Your task to perform on an android device: Add energizer triple a to the cart on amazon.com Image 0: 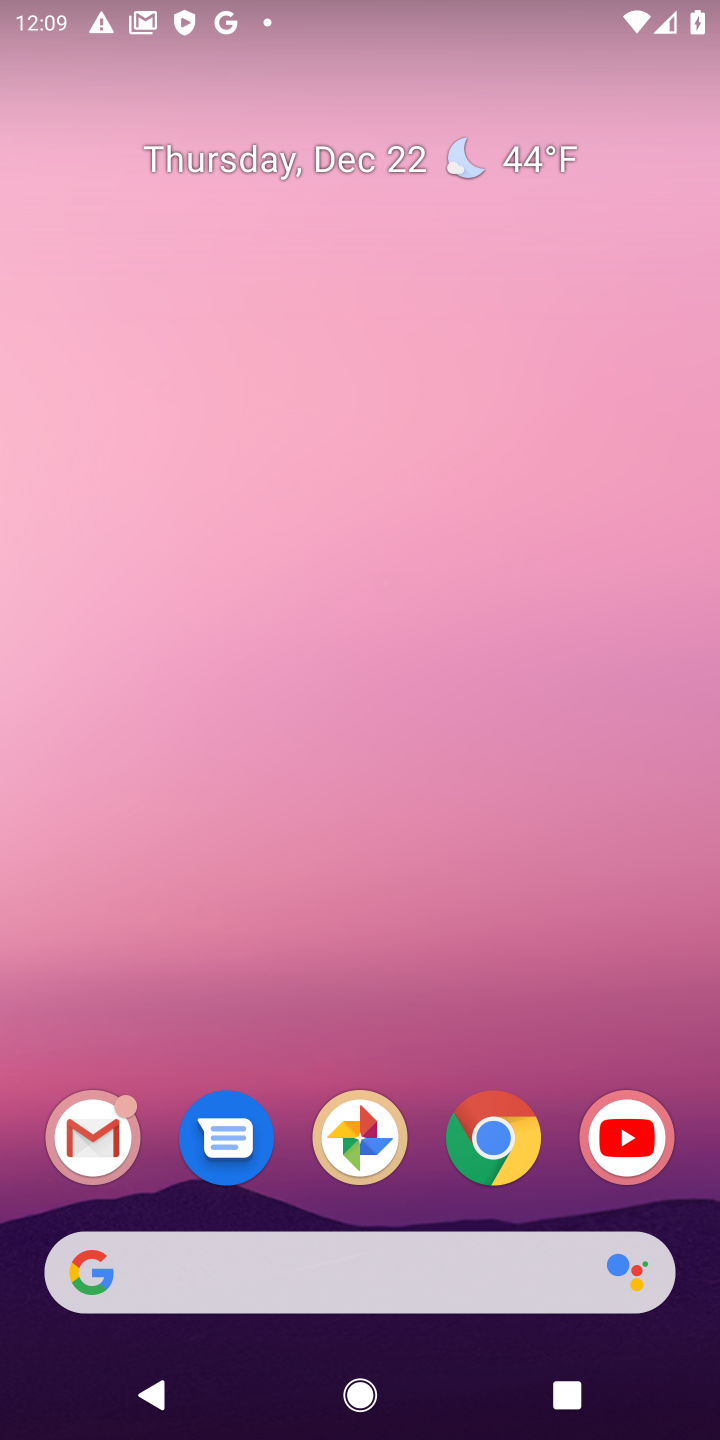
Step 0: click (492, 1143)
Your task to perform on an android device: Add energizer triple a to the cart on amazon.com Image 1: 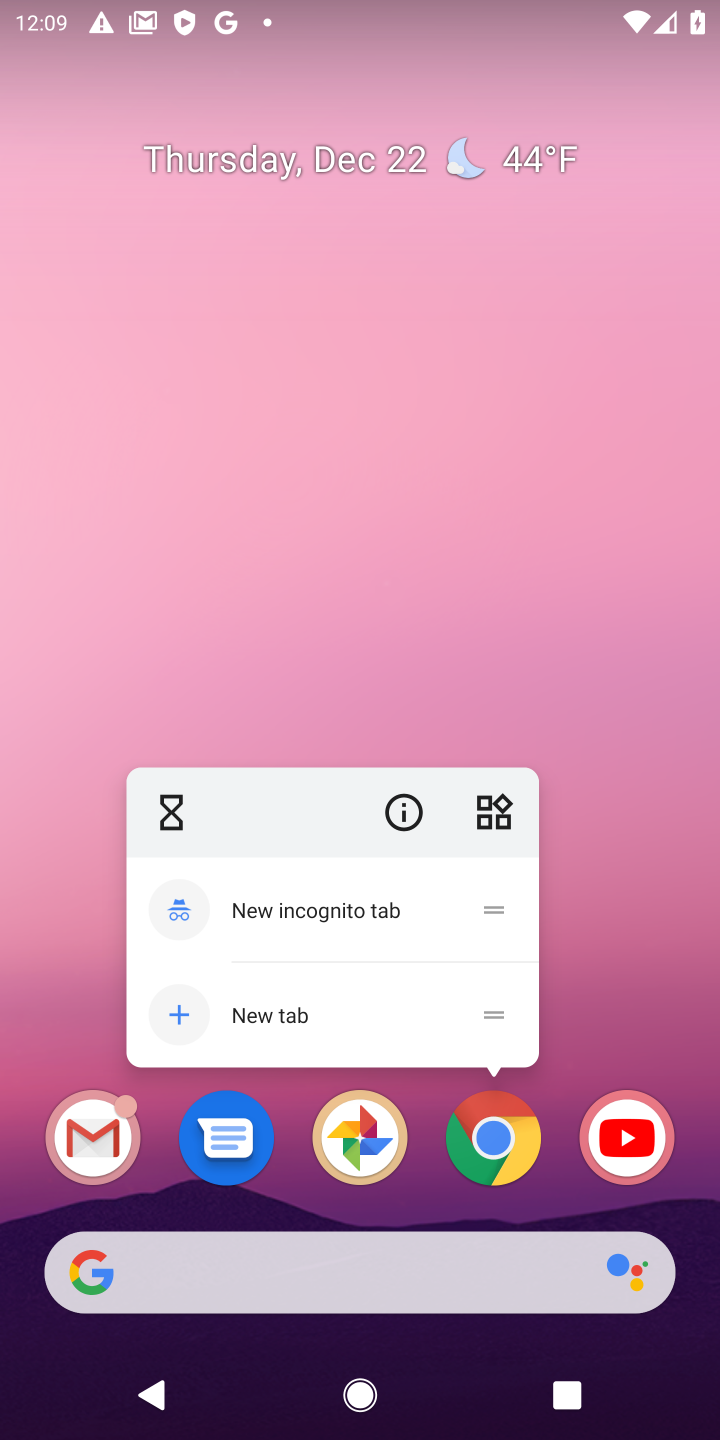
Step 1: click (492, 1143)
Your task to perform on an android device: Add energizer triple a to the cart on amazon.com Image 2: 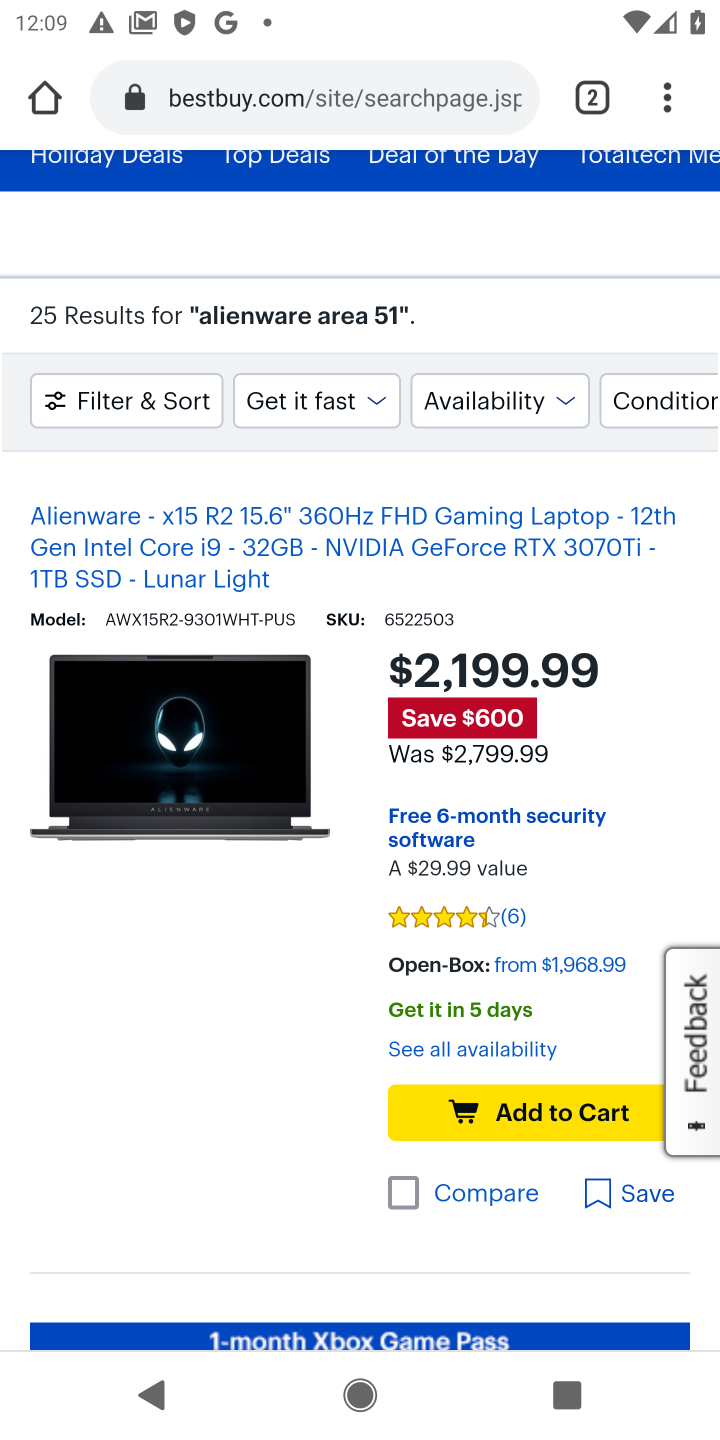
Step 2: click (266, 106)
Your task to perform on an android device: Add energizer triple a to the cart on amazon.com Image 3: 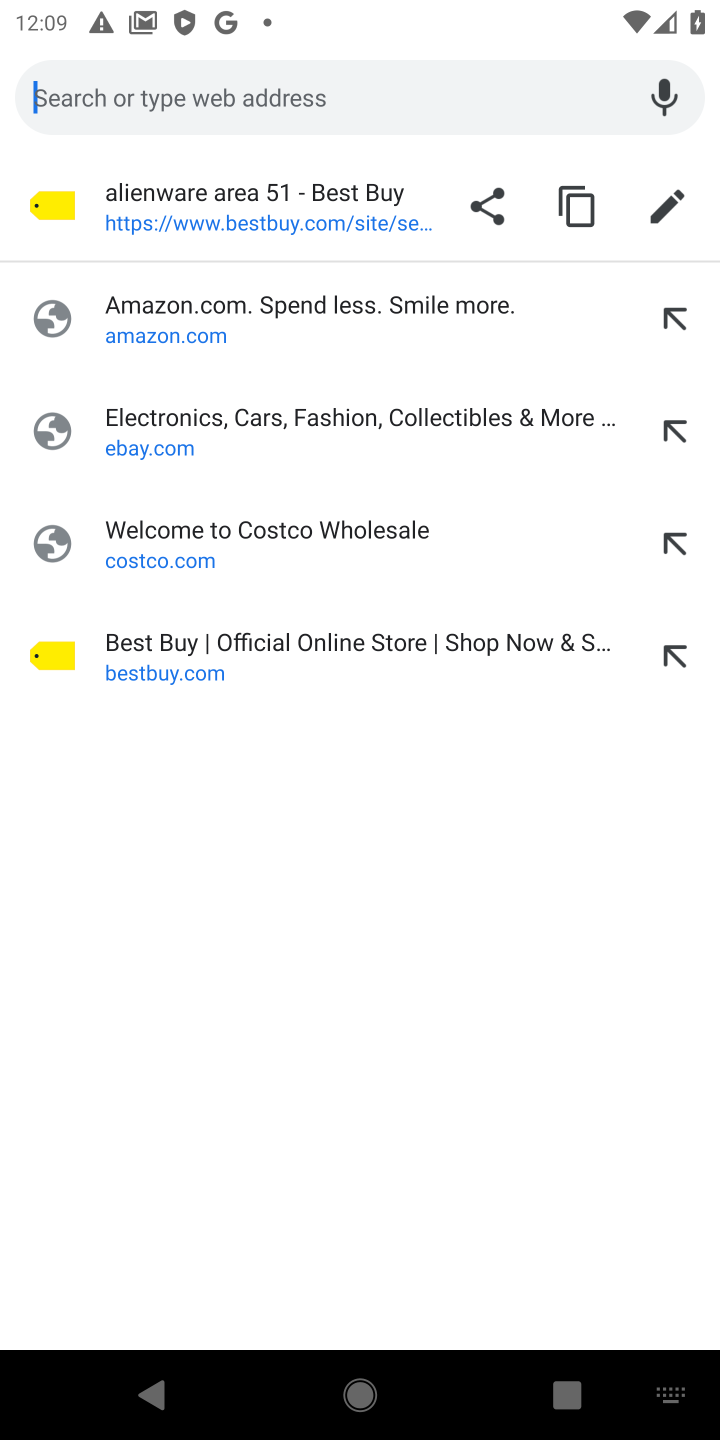
Step 3: click (181, 324)
Your task to perform on an android device: Add energizer triple a to the cart on amazon.com Image 4: 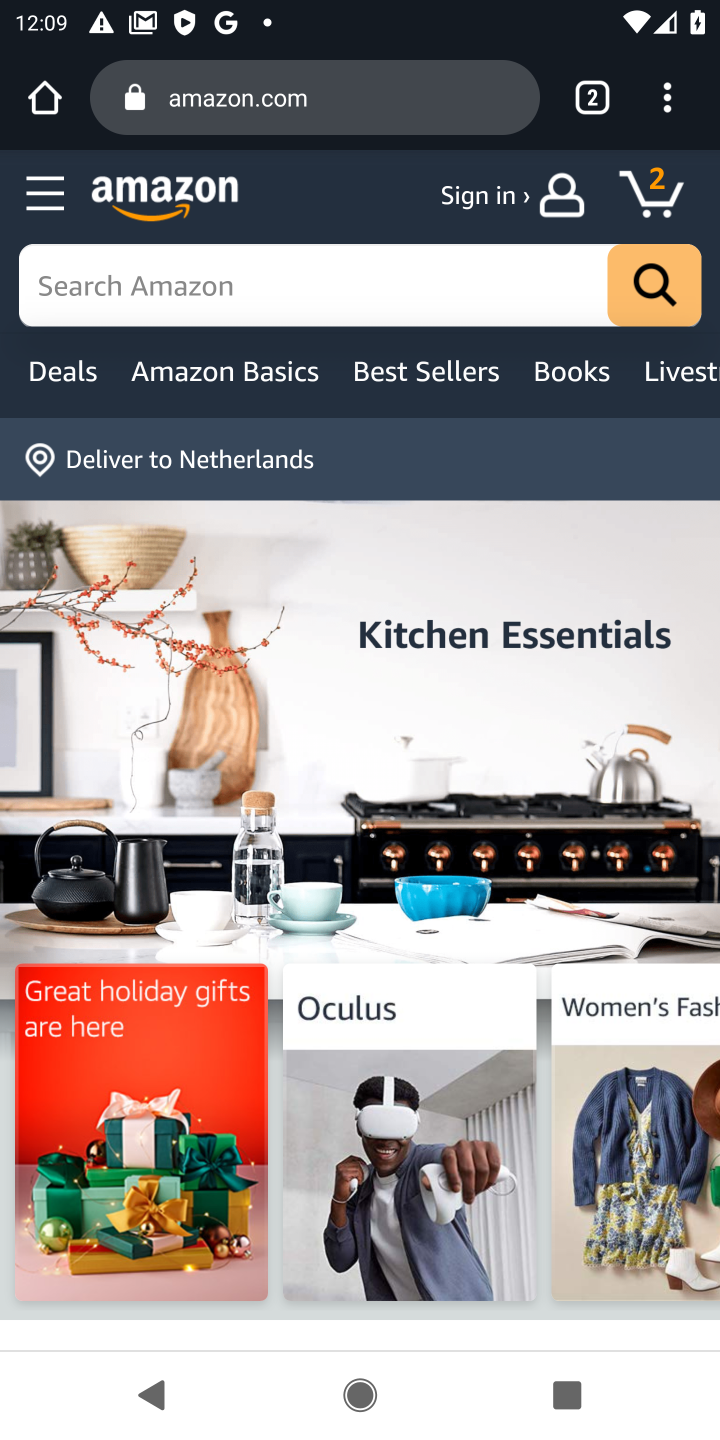
Step 4: click (120, 301)
Your task to perform on an android device: Add energizer triple a to the cart on amazon.com Image 5: 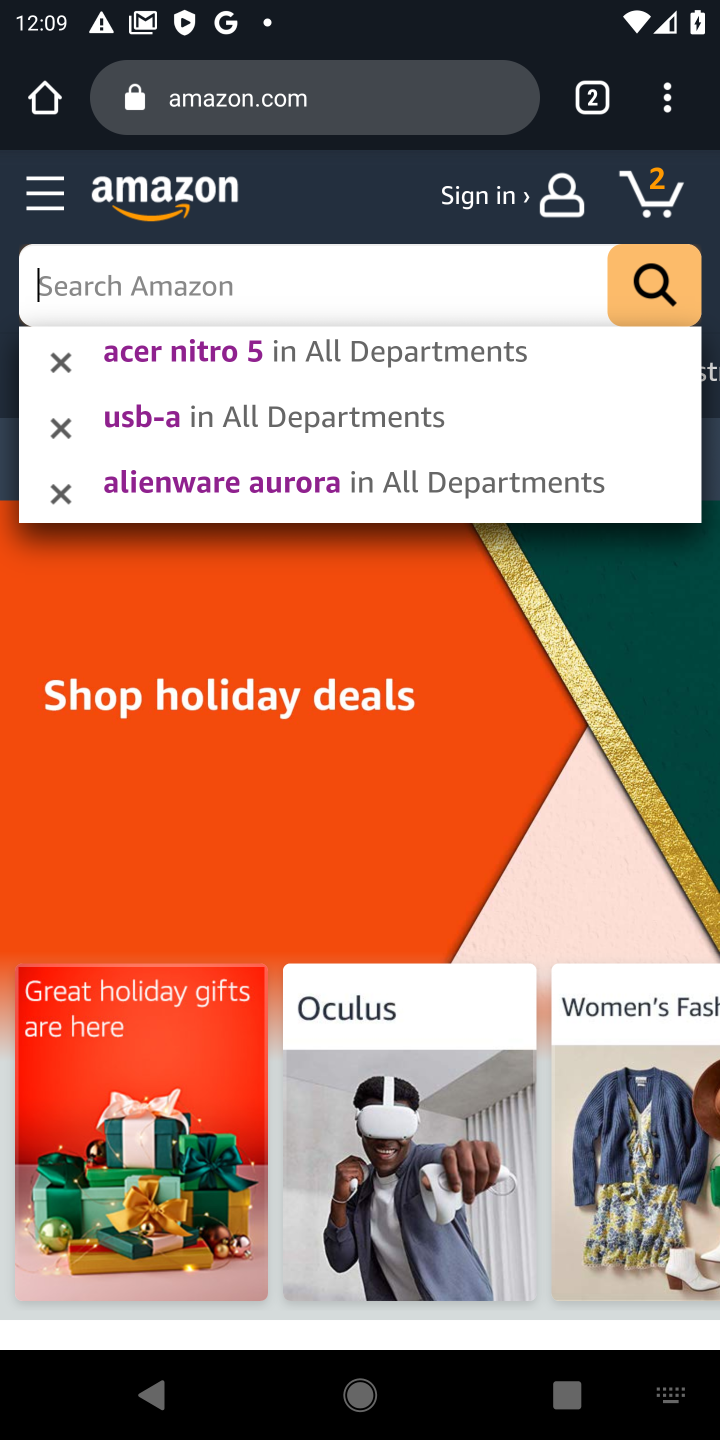
Step 5: type "energizer triple a"
Your task to perform on an android device: Add energizer triple a to the cart on amazon.com Image 6: 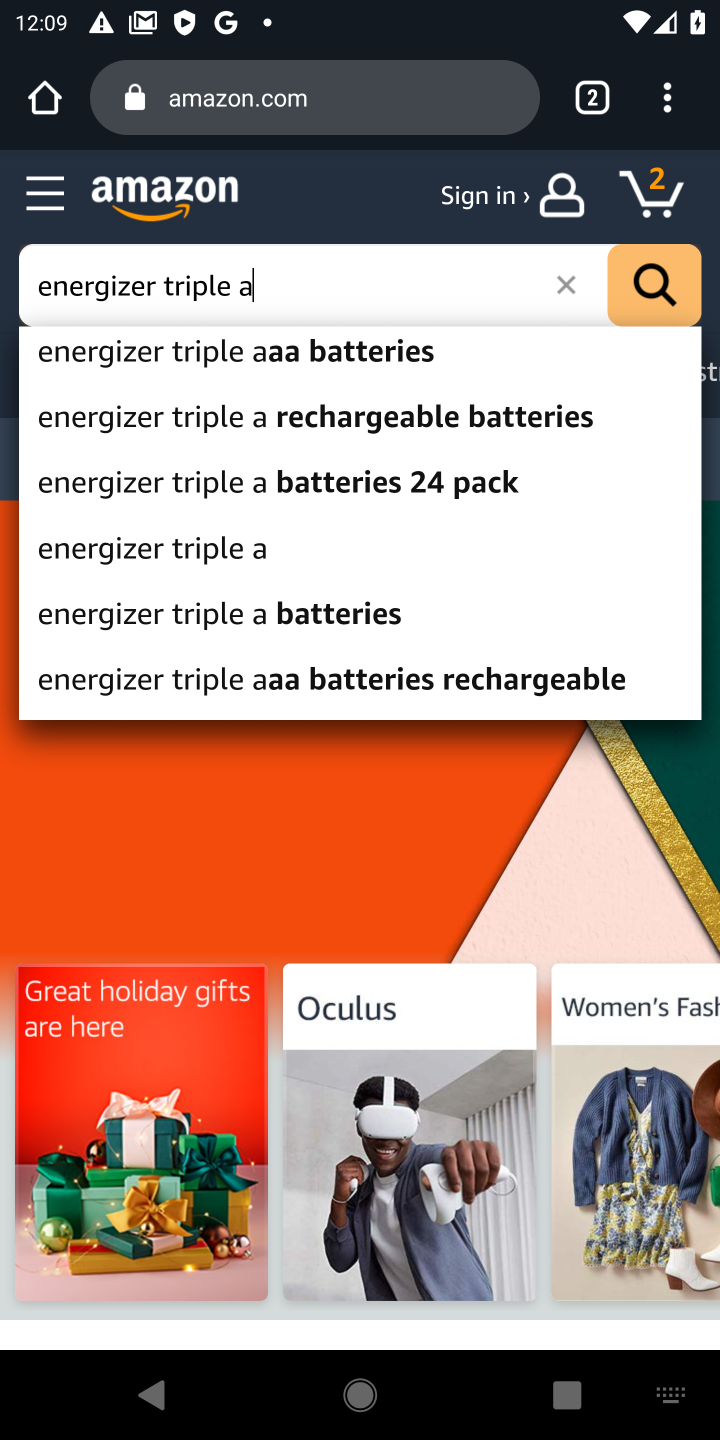
Step 6: click (224, 364)
Your task to perform on an android device: Add energizer triple a to the cart on amazon.com Image 7: 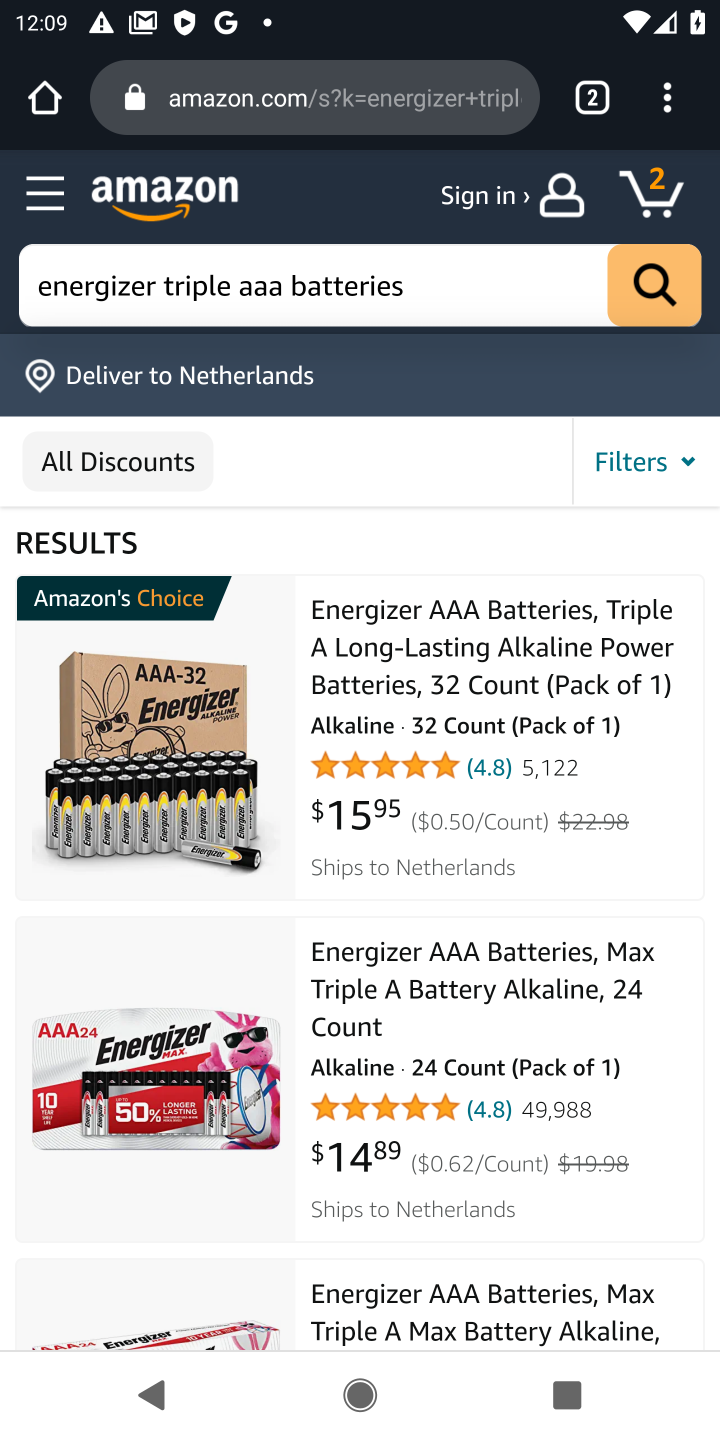
Step 7: click (401, 678)
Your task to perform on an android device: Add energizer triple a to the cart on amazon.com Image 8: 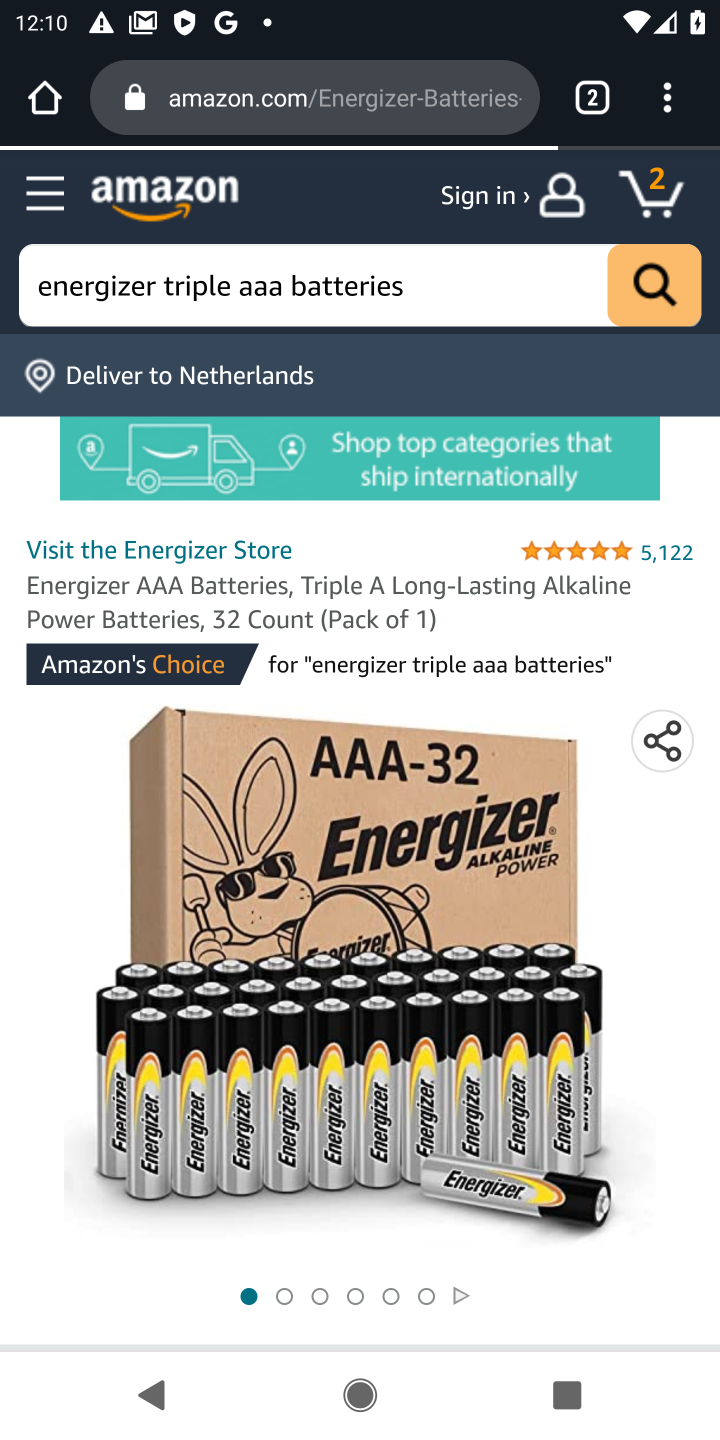
Step 8: drag from (315, 923) to (298, 573)
Your task to perform on an android device: Add energizer triple a to the cart on amazon.com Image 9: 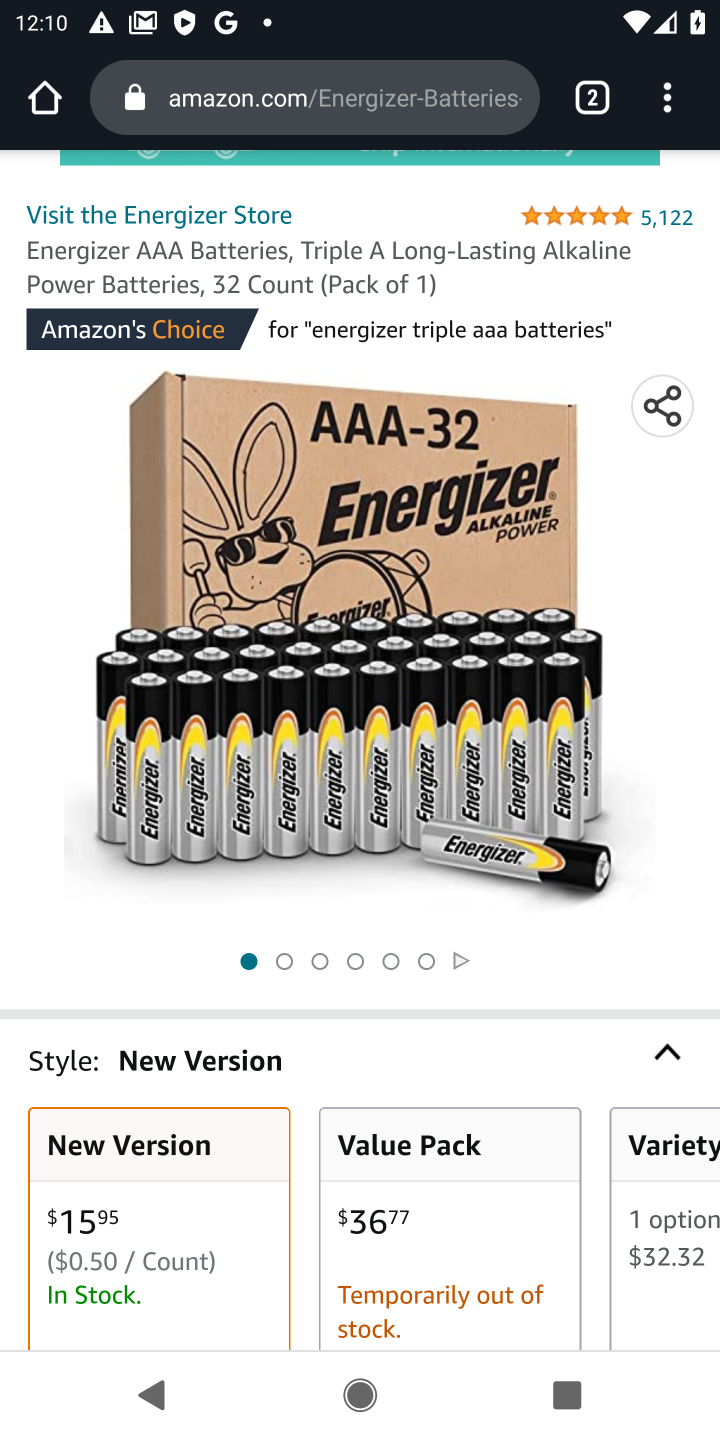
Step 9: drag from (346, 853) to (286, 389)
Your task to perform on an android device: Add energizer triple a to the cart on amazon.com Image 10: 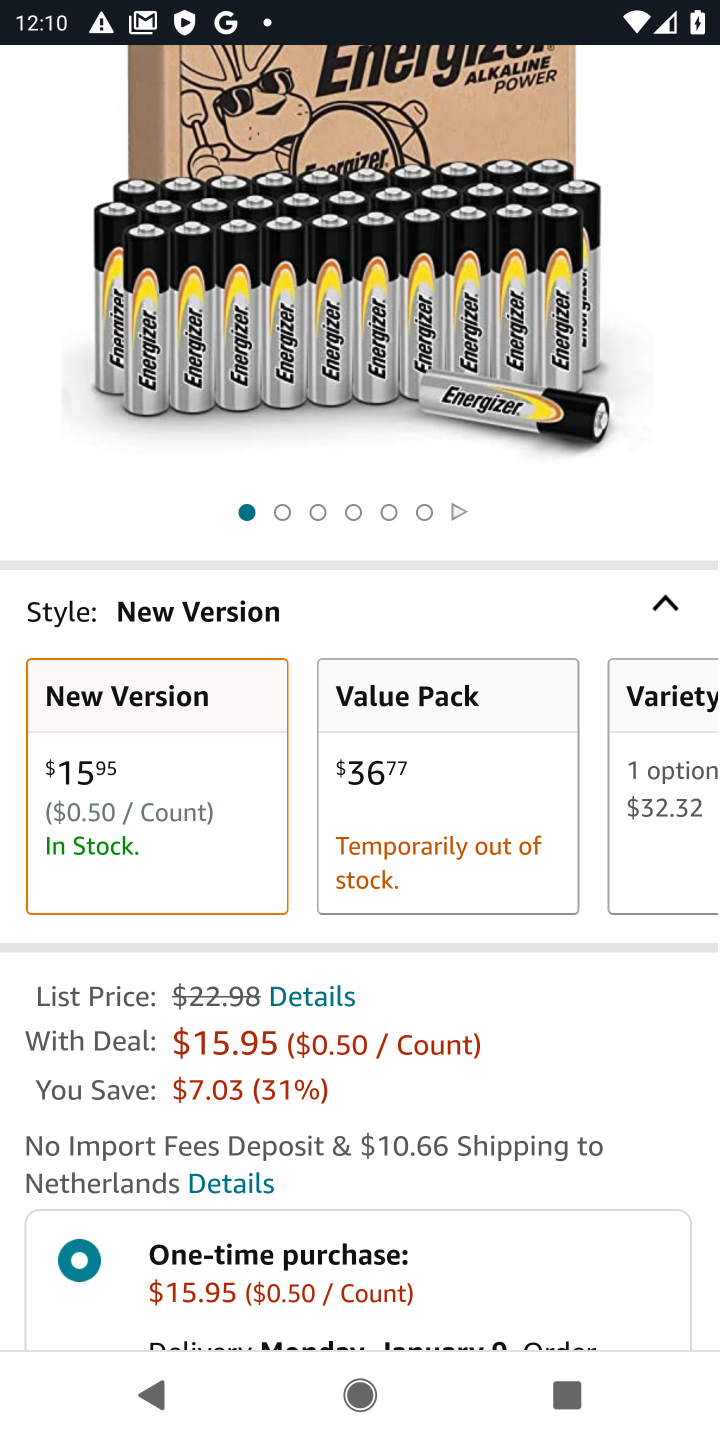
Step 10: drag from (347, 1064) to (334, 451)
Your task to perform on an android device: Add energizer triple a to the cart on amazon.com Image 11: 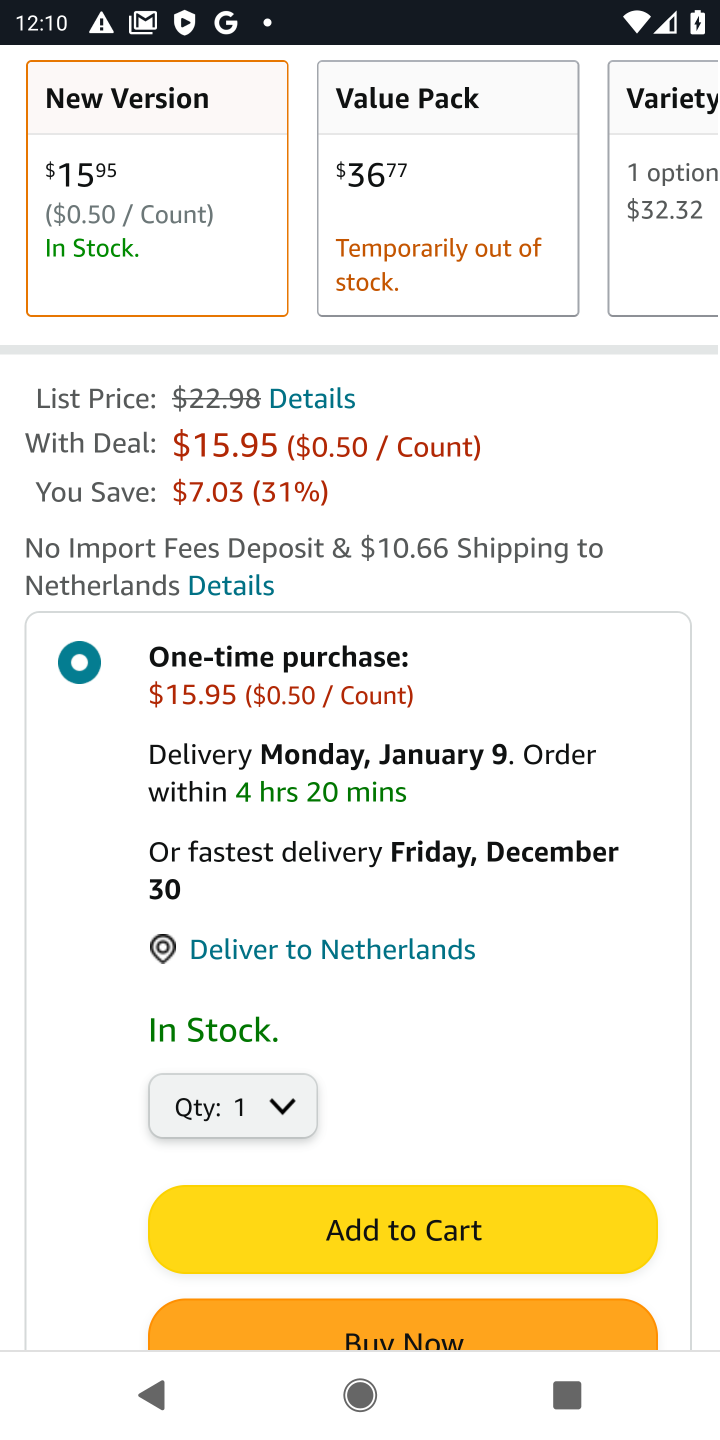
Step 11: drag from (361, 1002) to (344, 654)
Your task to perform on an android device: Add energizer triple a to the cart on amazon.com Image 12: 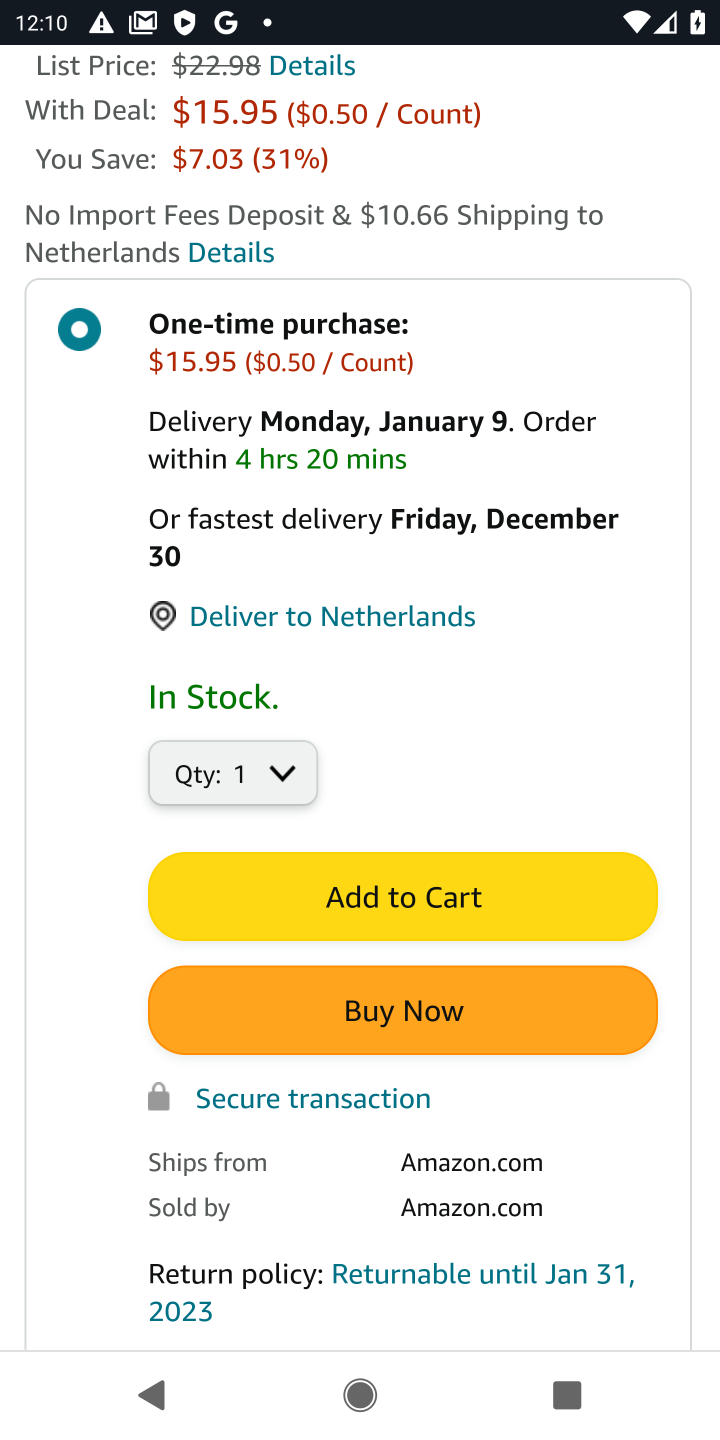
Step 12: click (366, 884)
Your task to perform on an android device: Add energizer triple a to the cart on amazon.com Image 13: 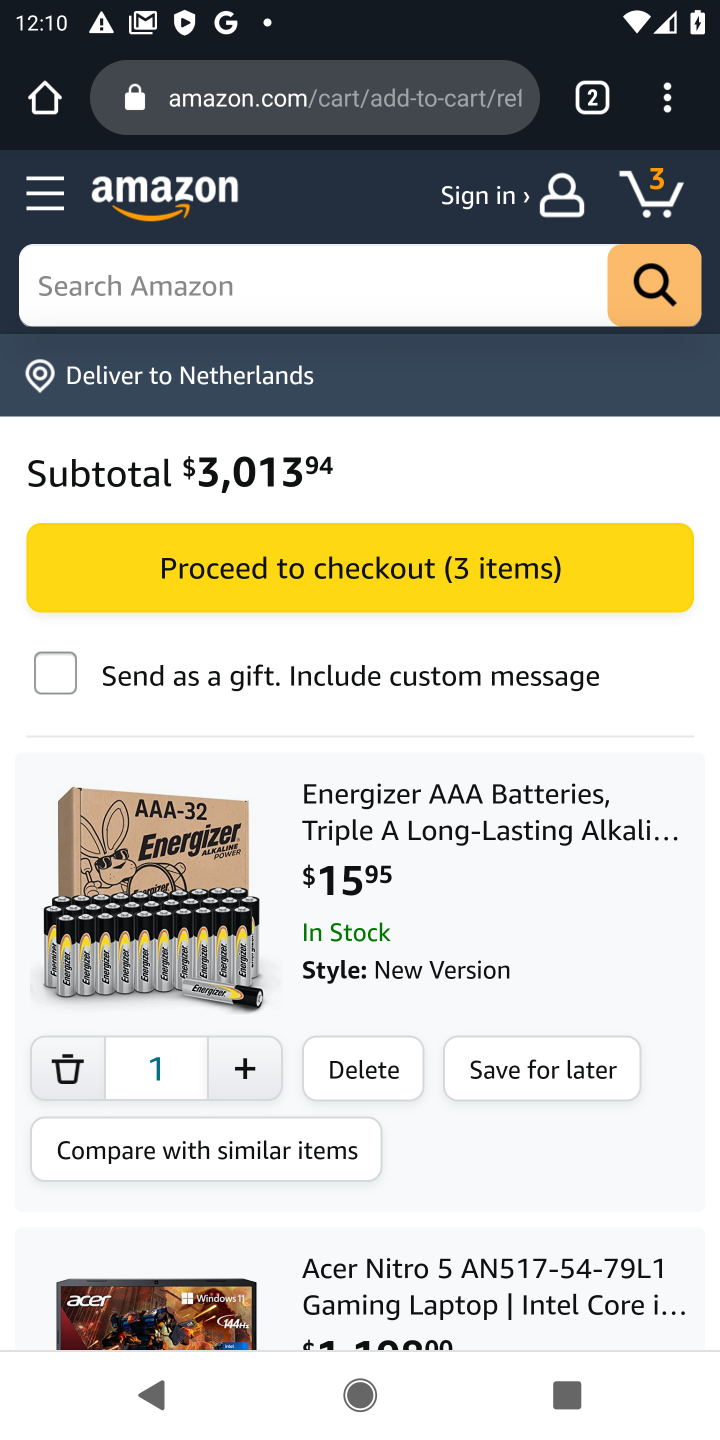
Step 13: task complete